Your task to perform on an android device: Go to internet settings Image 0: 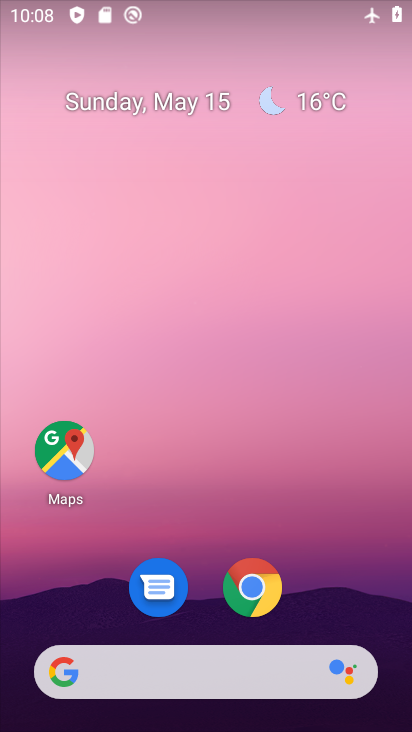
Step 0: drag from (325, 551) to (302, 3)
Your task to perform on an android device: Go to internet settings Image 1: 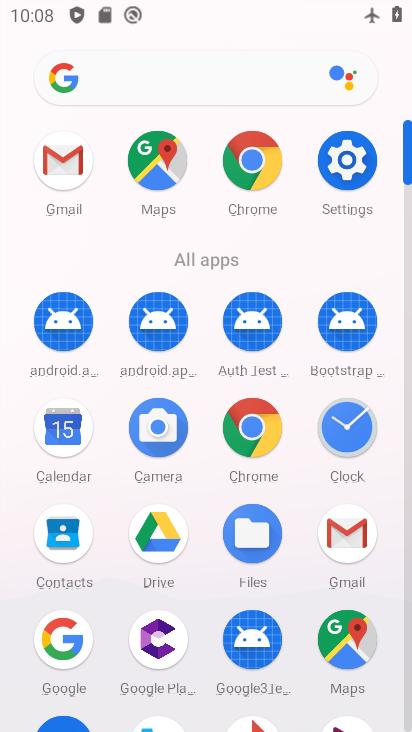
Step 1: drag from (17, 540) to (14, 272)
Your task to perform on an android device: Go to internet settings Image 2: 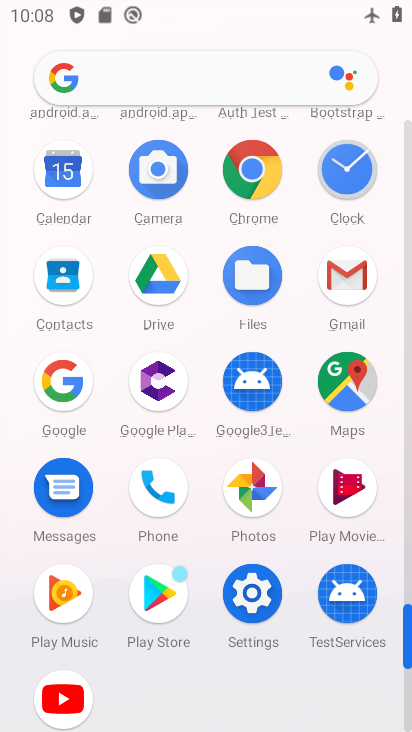
Step 2: click (254, 590)
Your task to perform on an android device: Go to internet settings Image 3: 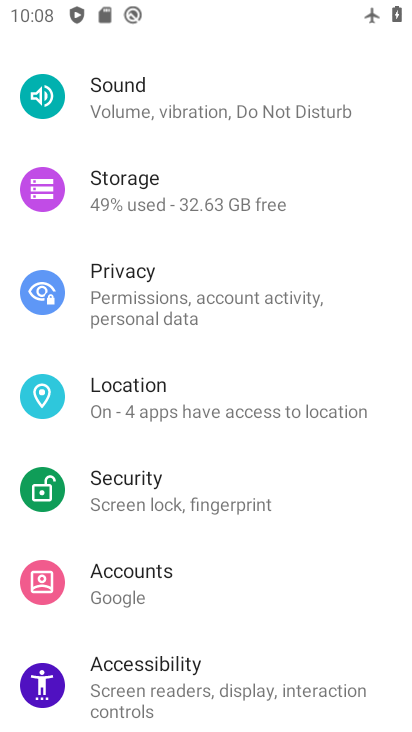
Step 3: drag from (230, 144) to (229, 594)
Your task to perform on an android device: Go to internet settings Image 4: 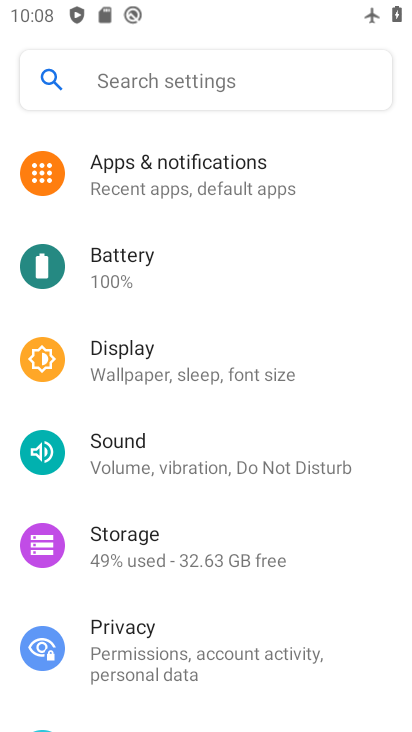
Step 4: drag from (237, 224) to (238, 564)
Your task to perform on an android device: Go to internet settings Image 5: 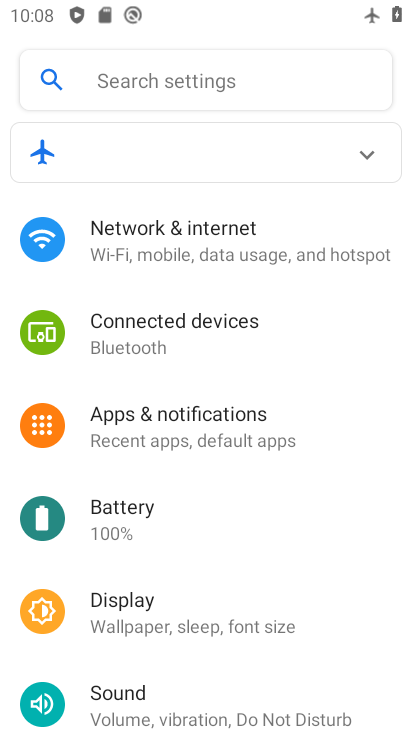
Step 5: click (205, 243)
Your task to perform on an android device: Go to internet settings Image 6: 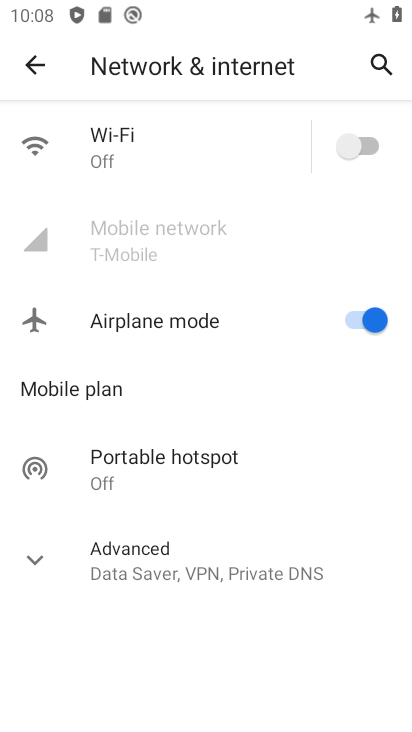
Step 6: click (37, 569)
Your task to perform on an android device: Go to internet settings Image 7: 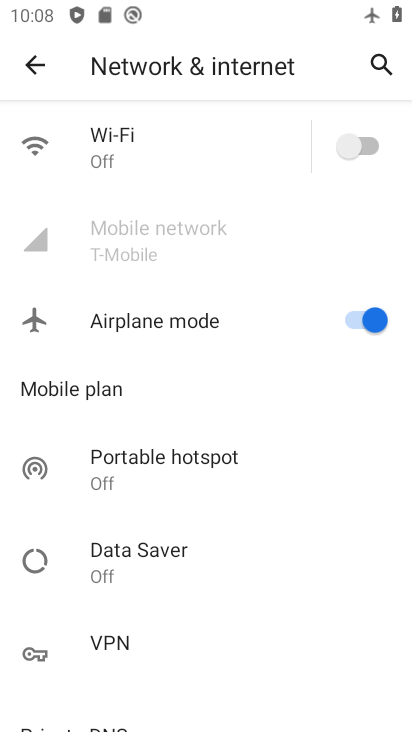
Step 7: task complete